Your task to perform on an android device: Open Google Chrome Image 0: 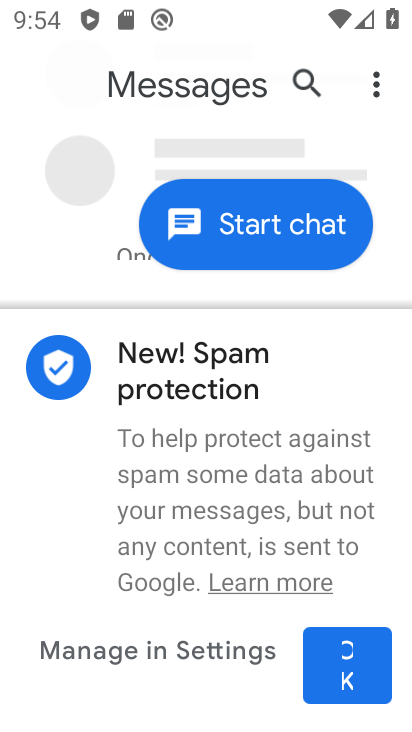
Step 0: press home button
Your task to perform on an android device: Open Google Chrome Image 1: 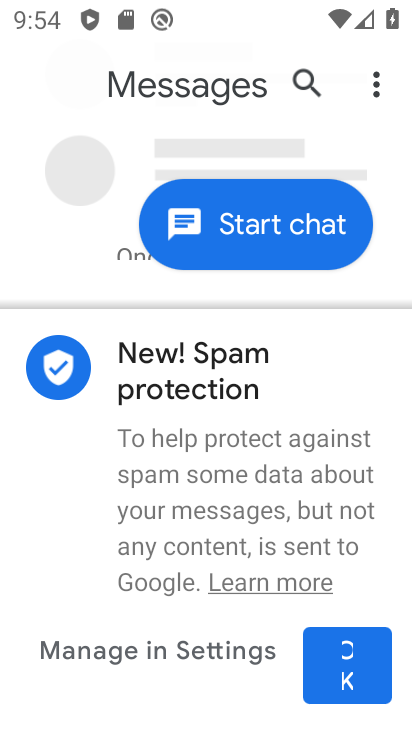
Step 1: press home button
Your task to perform on an android device: Open Google Chrome Image 2: 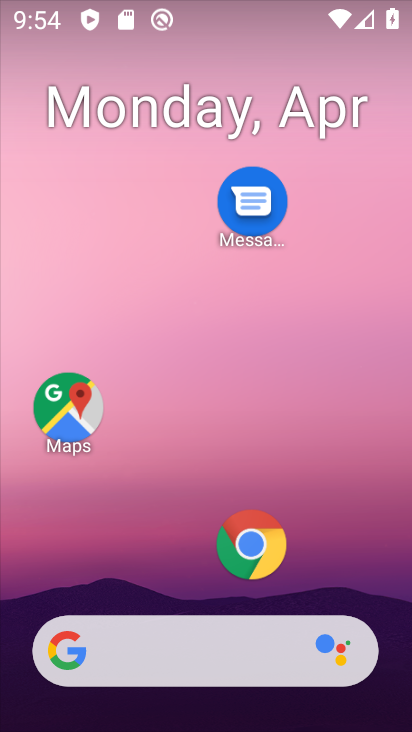
Step 2: click (254, 543)
Your task to perform on an android device: Open Google Chrome Image 3: 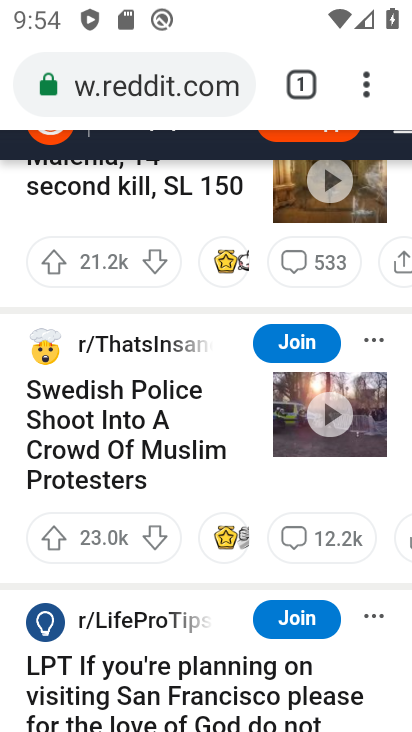
Step 3: task complete